Your task to perform on an android device: toggle notifications settings in the gmail app Image 0: 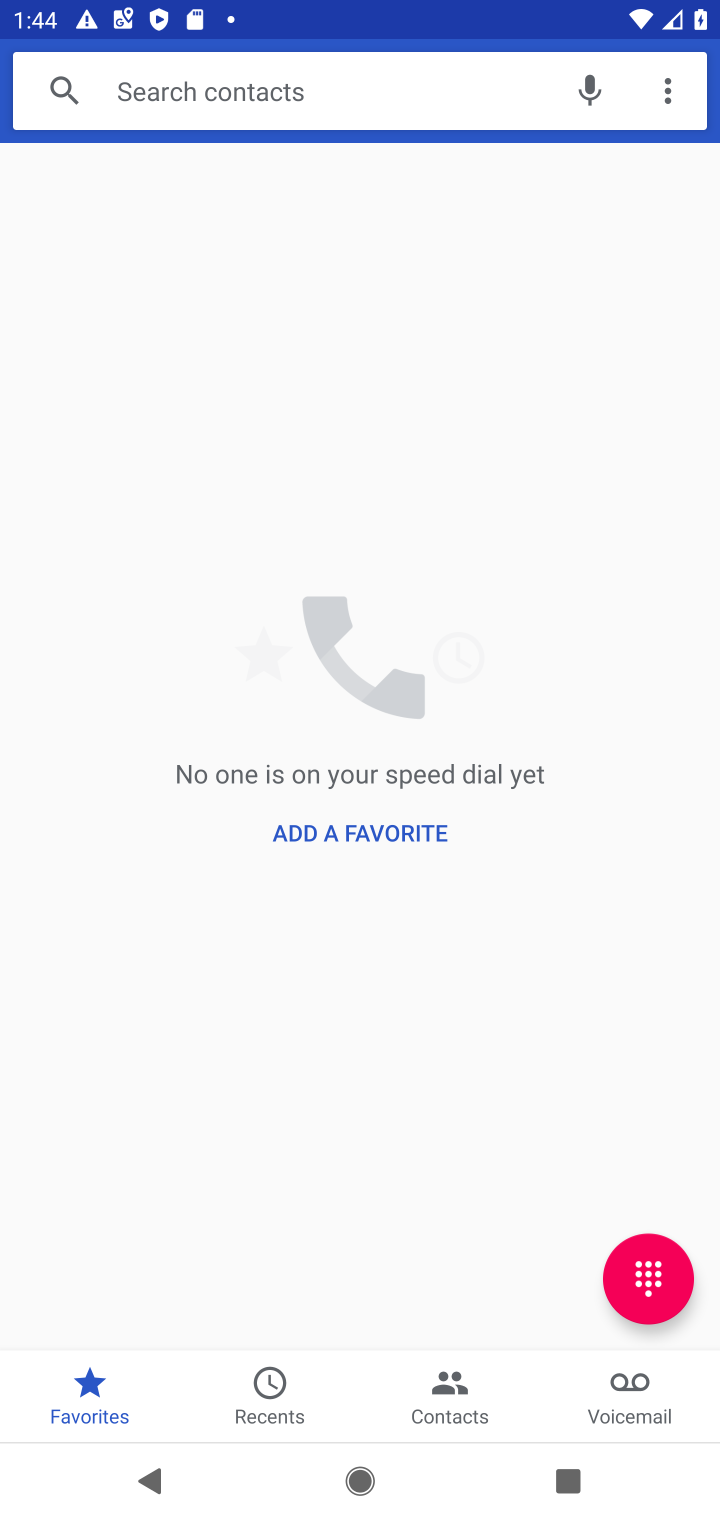
Step 0: press home button
Your task to perform on an android device: toggle notifications settings in the gmail app Image 1: 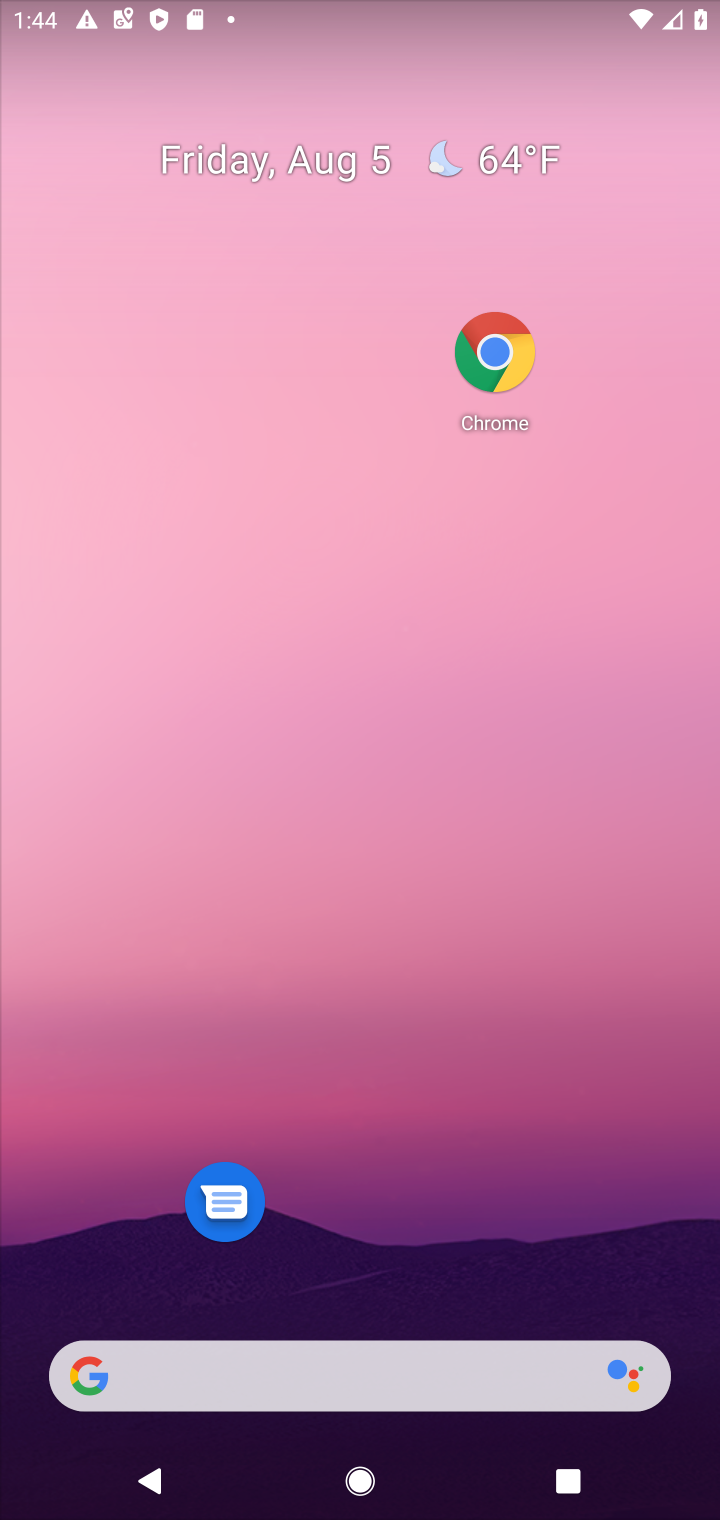
Step 1: drag from (521, 1196) to (293, 1)
Your task to perform on an android device: toggle notifications settings in the gmail app Image 2: 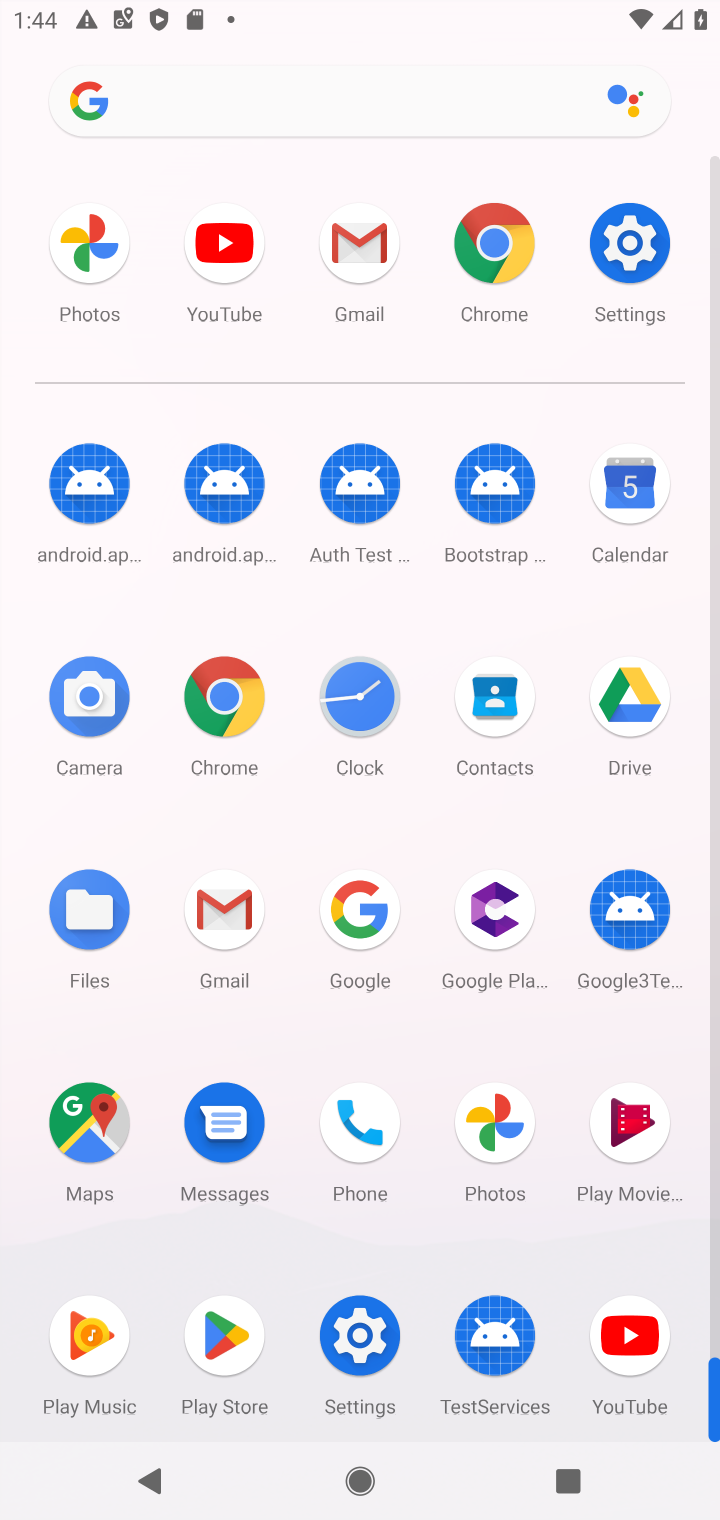
Step 2: click (230, 918)
Your task to perform on an android device: toggle notifications settings in the gmail app Image 3: 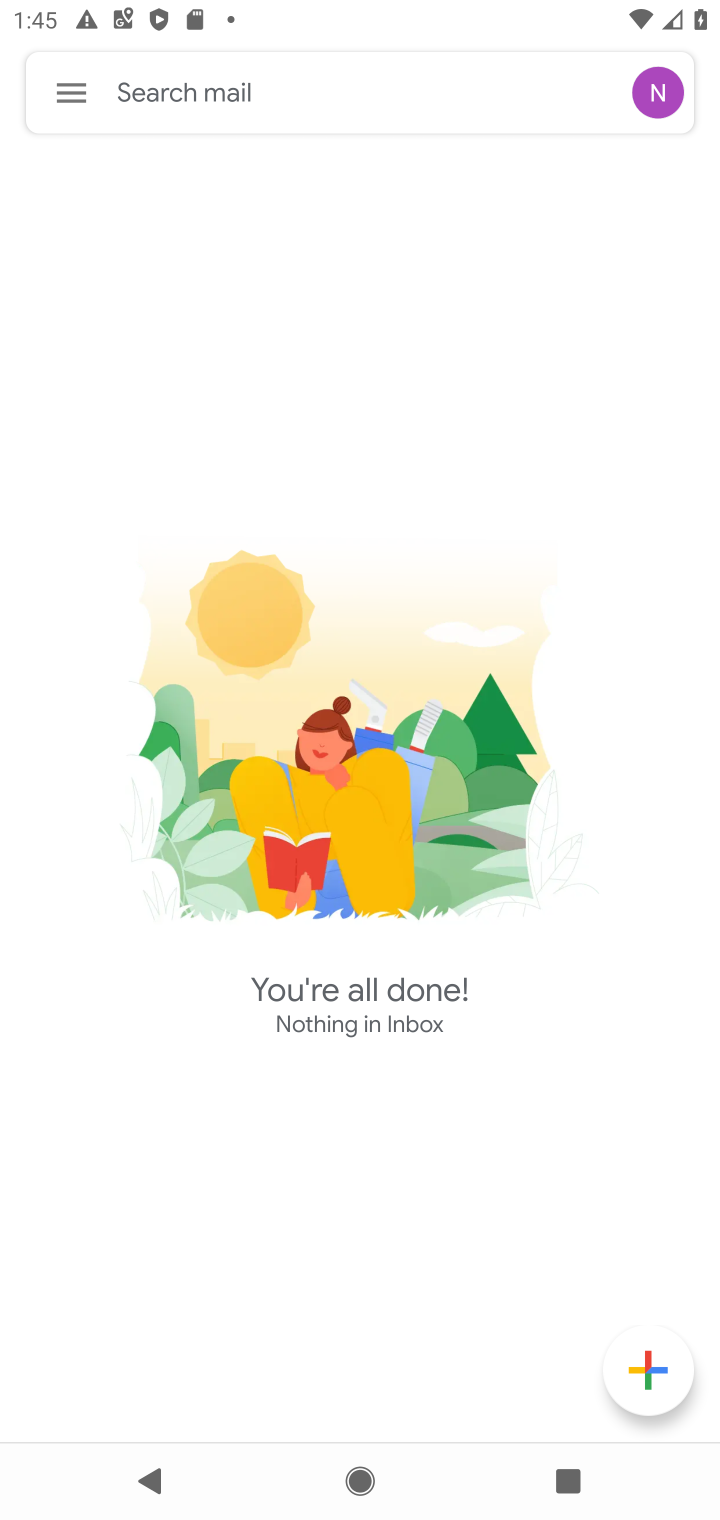
Step 3: click (65, 70)
Your task to perform on an android device: toggle notifications settings in the gmail app Image 4: 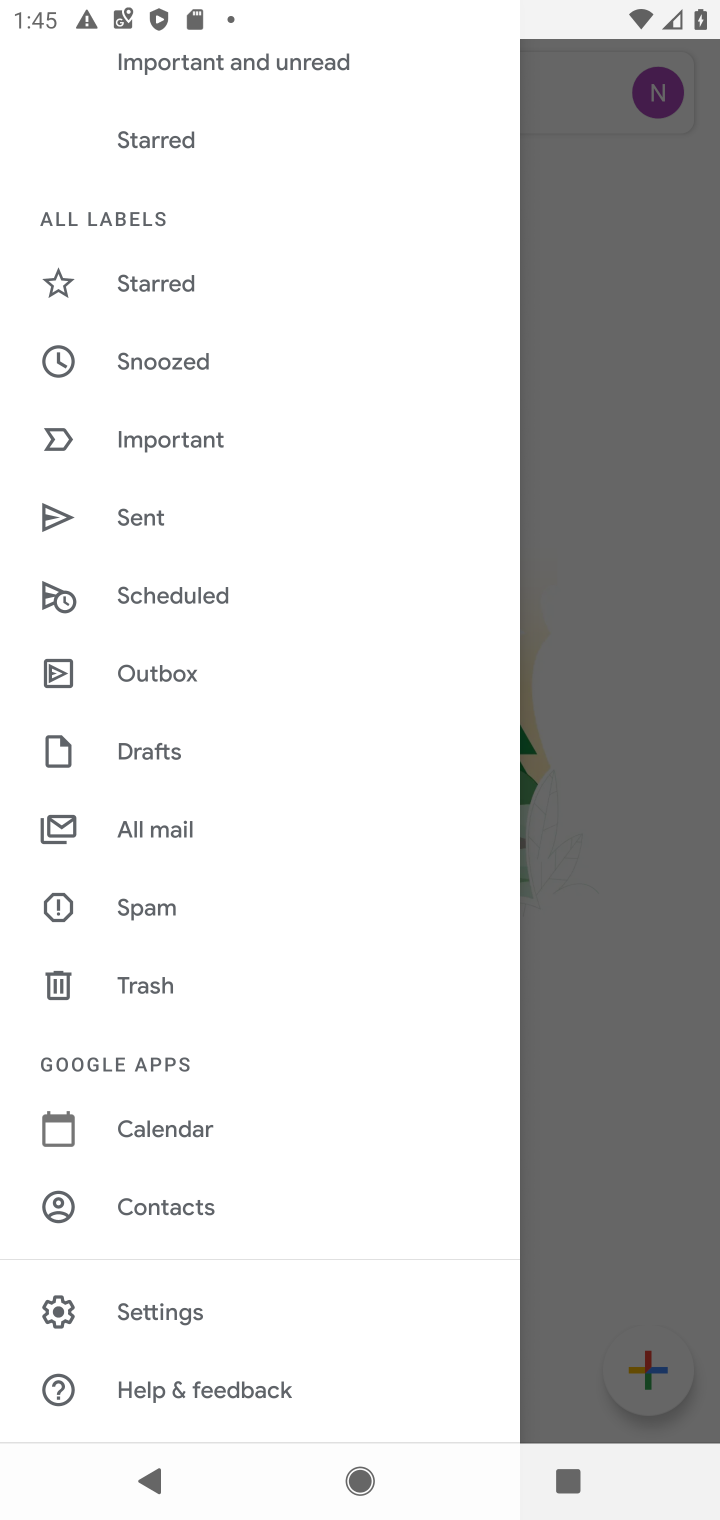
Step 4: click (104, 1295)
Your task to perform on an android device: toggle notifications settings in the gmail app Image 5: 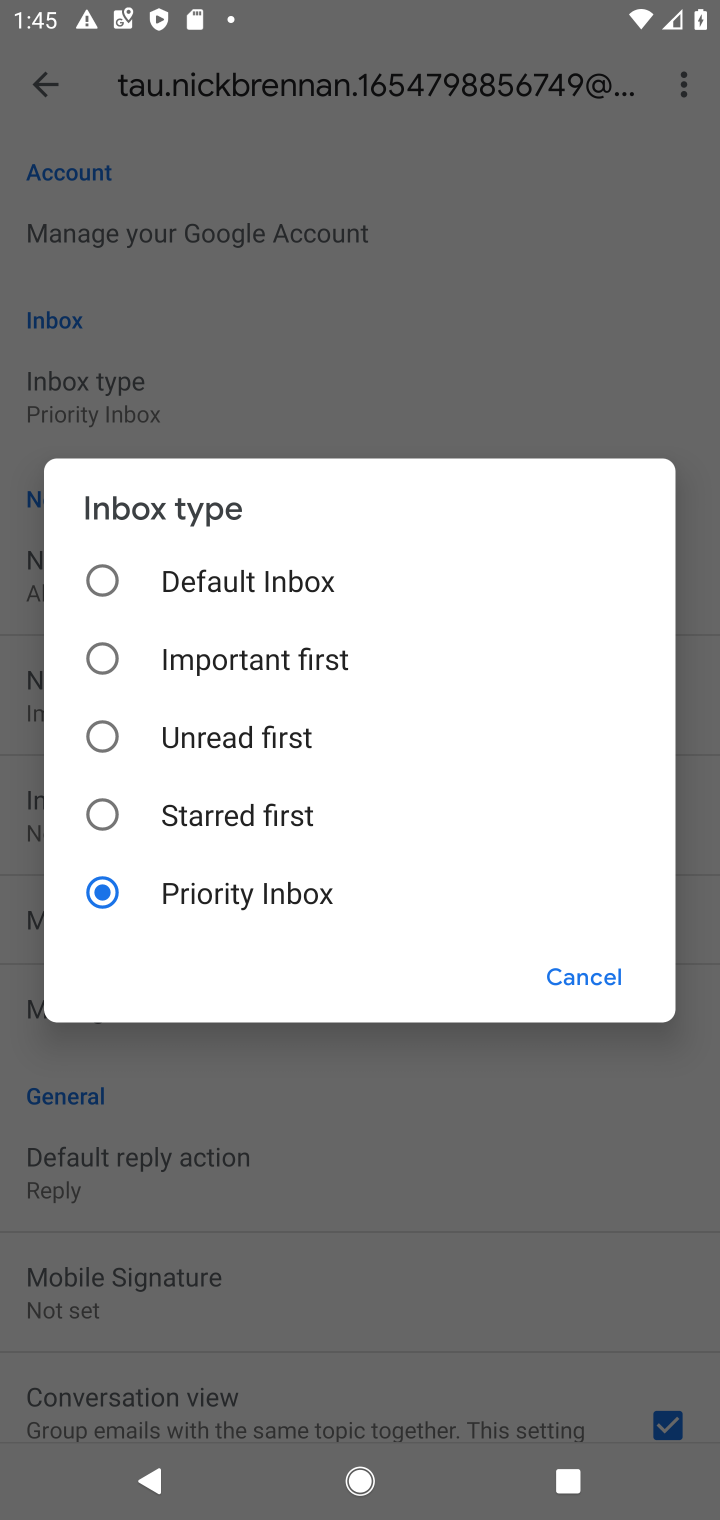
Step 5: click (596, 982)
Your task to perform on an android device: toggle notifications settings in the gmail app Image 6: 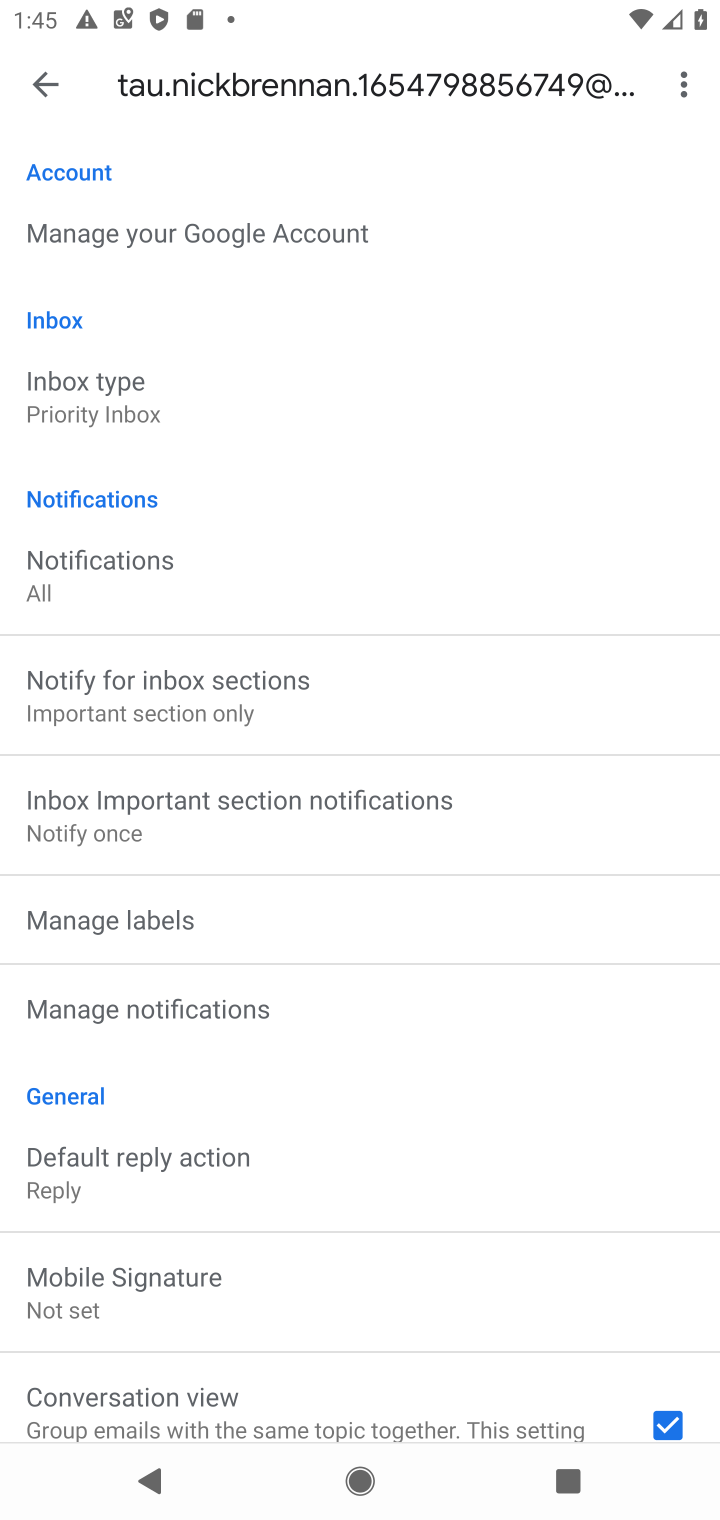
Step 6: click (179, 1008)
Your task to perform on an android device: toggle notifications settings in the gmail app Image 7: 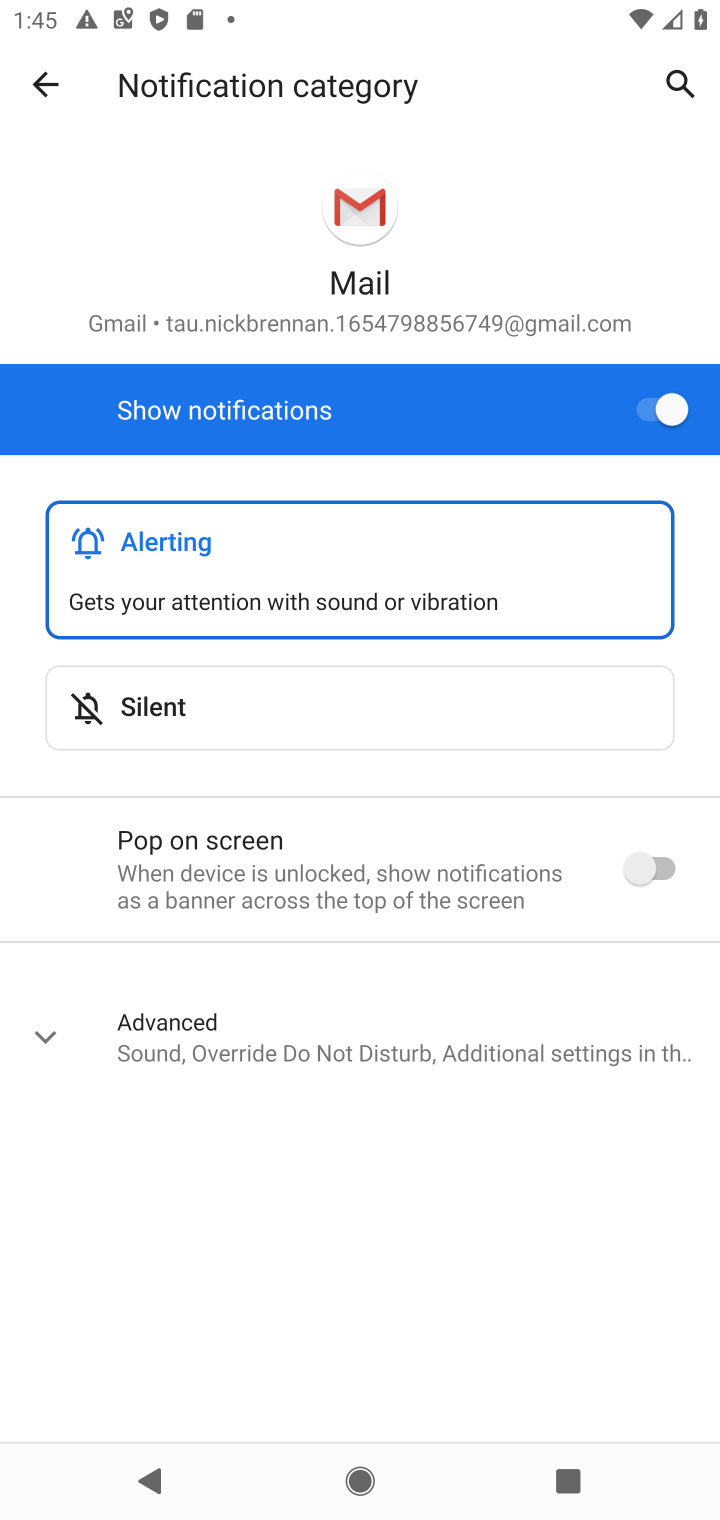
Step 7: click (632, 394)
Your task to perform on an android device: toggle notifications settings in the gmail app Image 8: 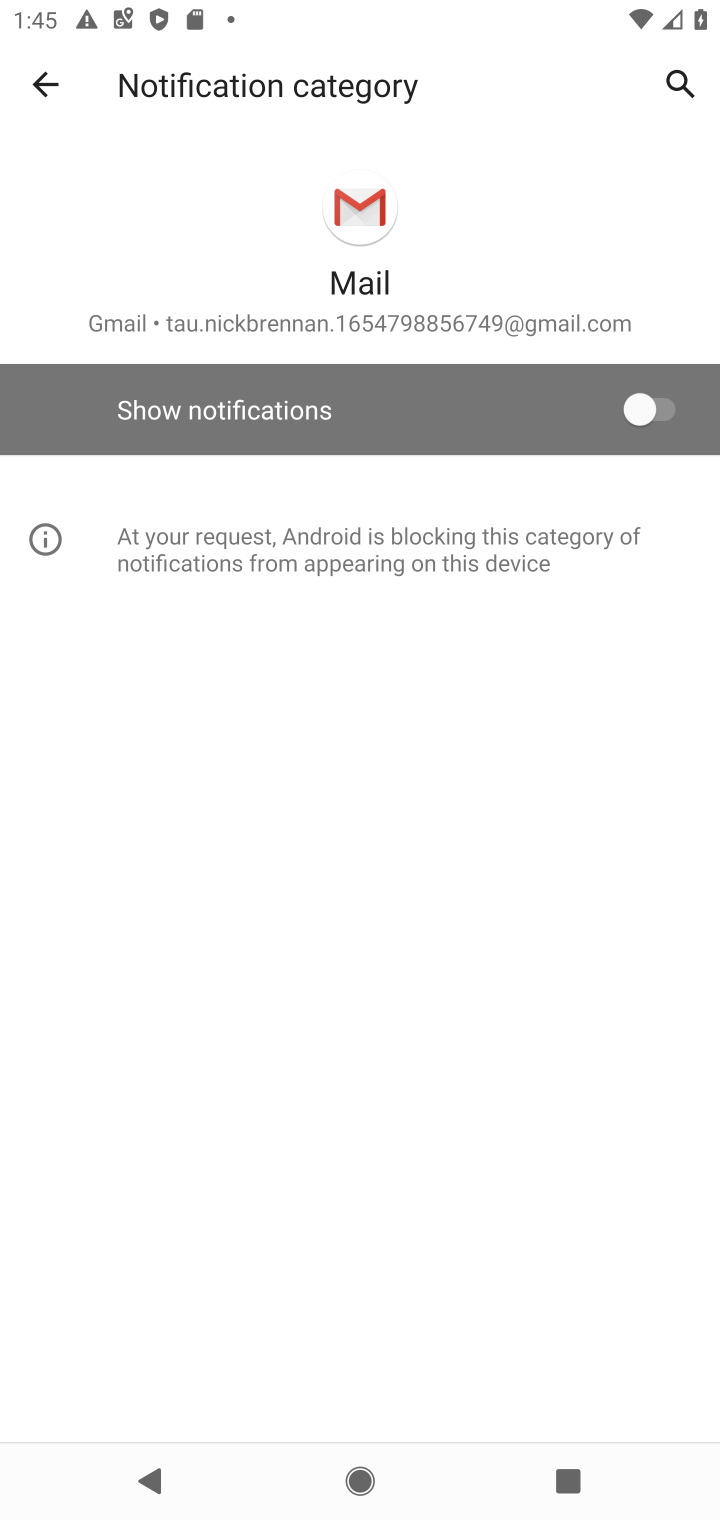
Step 8: task complete